Your task to perform on an android device: Open Google Chrome Image 0: 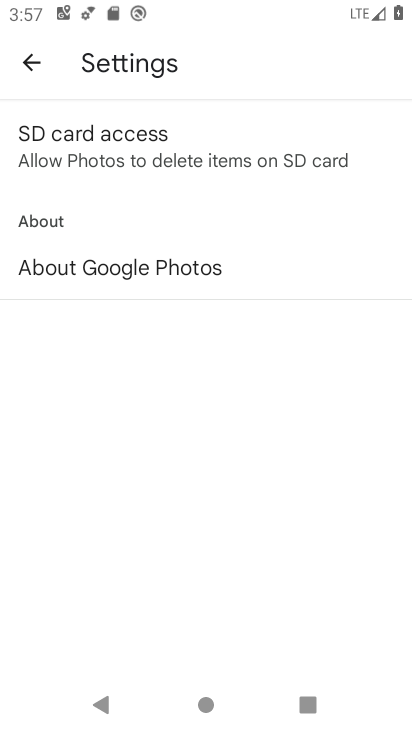
Step 0: press home button
Your task to perform on an android device: Open Google Chrome Image 1: 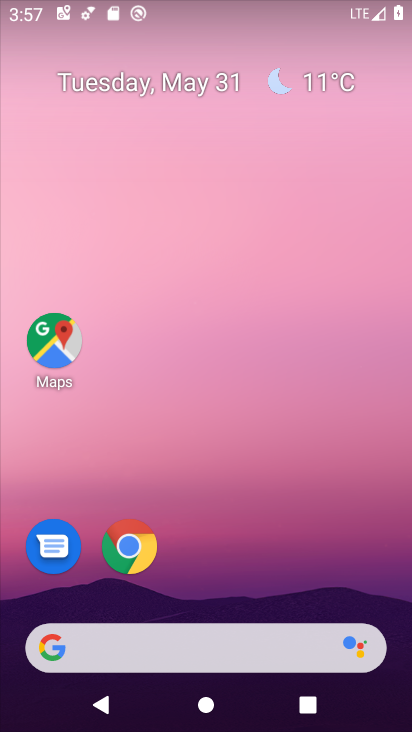
Step 1: drag from (296, 518) to (216, 145)
Your task to perform on an android device: Open Google Chrome Image 2: 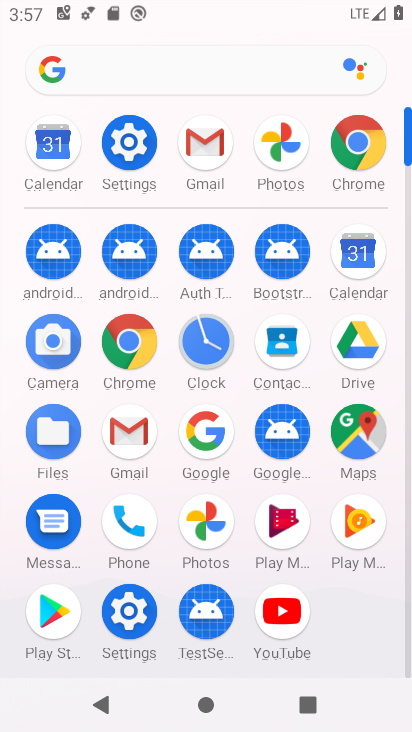
Step 2: click (139, 333)
Your task to perform on an android device: Open Google Chrome Image 3: 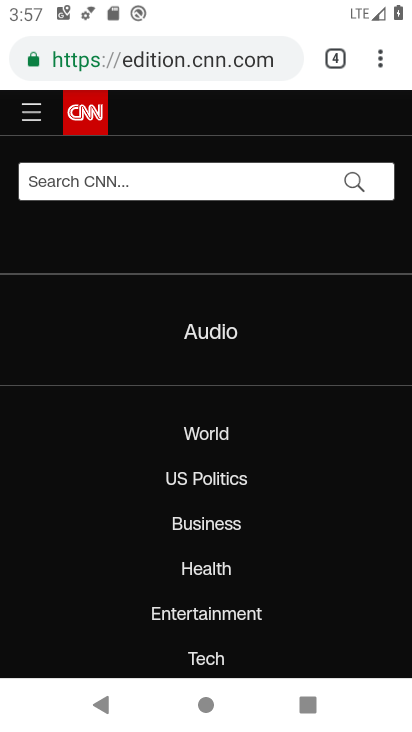
Step 3: task complete